Your task to perform on an android device: Search for Italian restaurants on Maps Image 0: 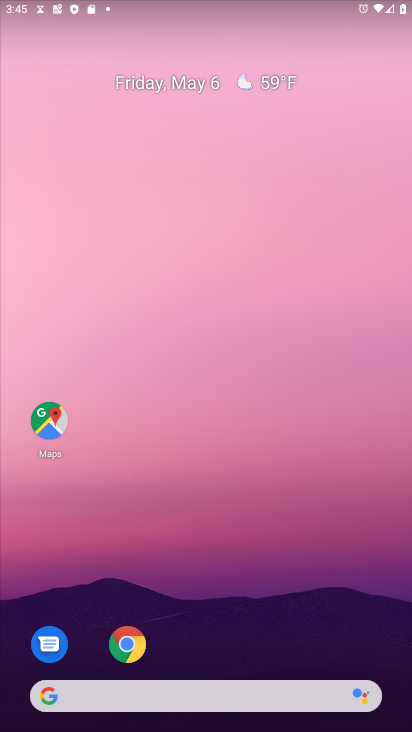
Step 0: click (48, 421)
Your task to perform on an android device: Search for Italian restaurants on Maps Image 1: 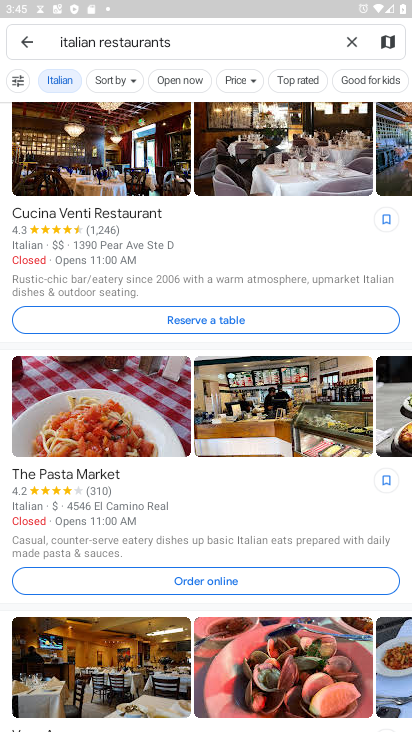
Step 1: task complete